Your task to perform on an android device: open app "Roku - Official Remote Control" (install if not already installed), go to login, and select forgot password Image 0: 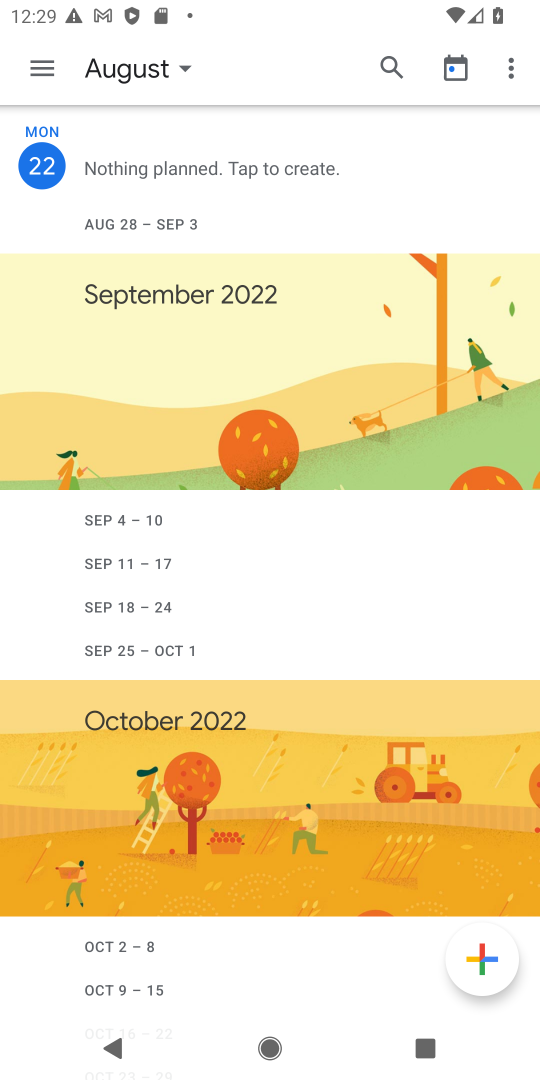
Step 0: press home button
Your task to perform on an android device: open app "Roku - Official Remote Control" (install if not already installed), go to login, and select forgot password Image 1: 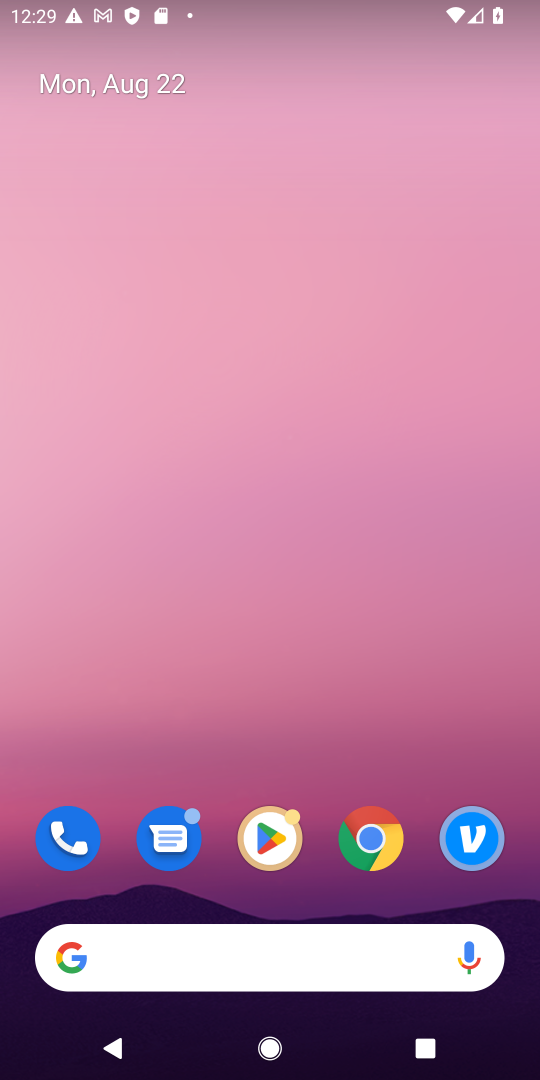
Step 1: drag from (253, 917) to (254, 206)
Your task to perform on an android device: open app "Roku - Official Remote Control" (install if not already installed), go to login, and select forgot password Image 2: 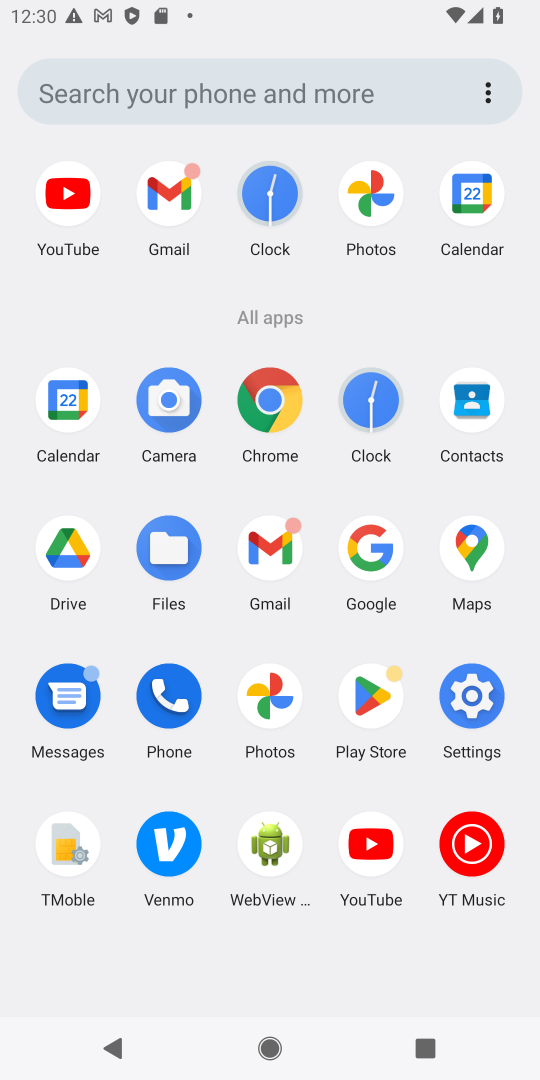
Step 2: click (383, 697)
Your task to perform on an android device: open app "Roku - Official Remote Control" (install if not already installed), go to login, and select forgot password Image 3: 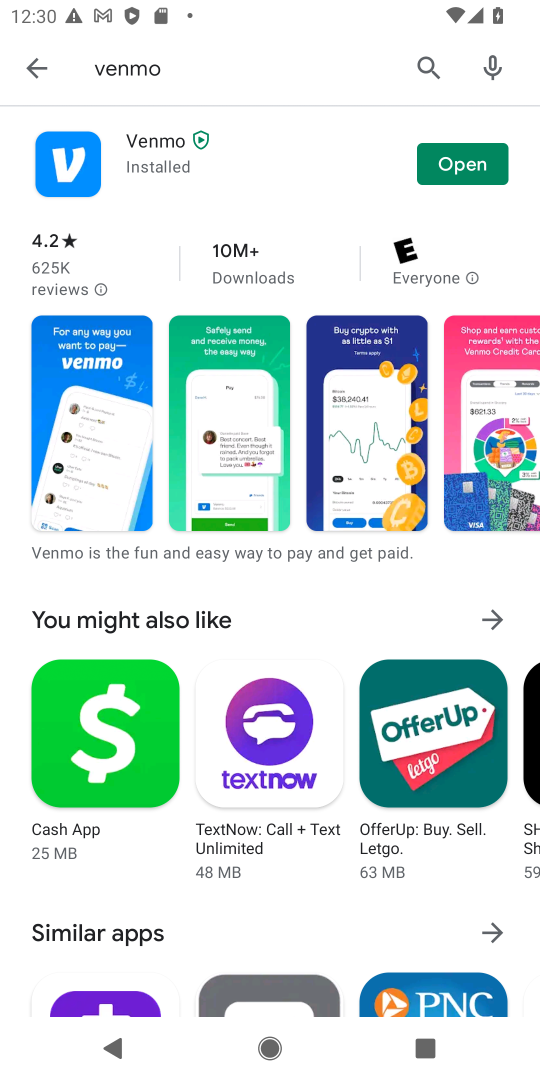
Step 3: click (427, 58)
Your task to perform on an android device: open app "Roku - Official Remote Control" (install if not already installed), go to login, and select forgot password Image 4: 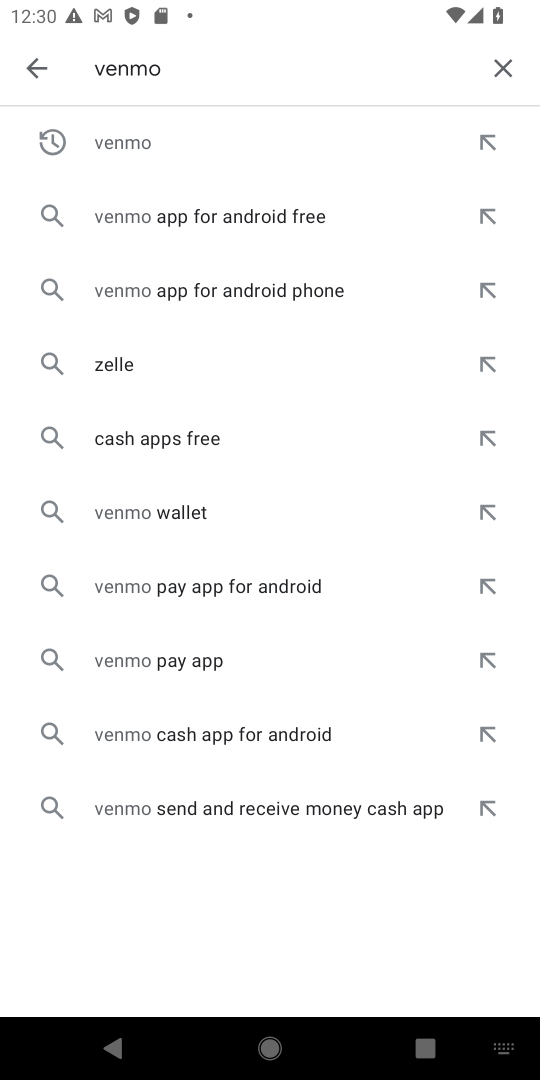
Step 4: click (492, 74)
Your task to perform on an android device: open app "Roku - Official Remote Control" (install if not already installed), go to login, and select forgot password Image 5: 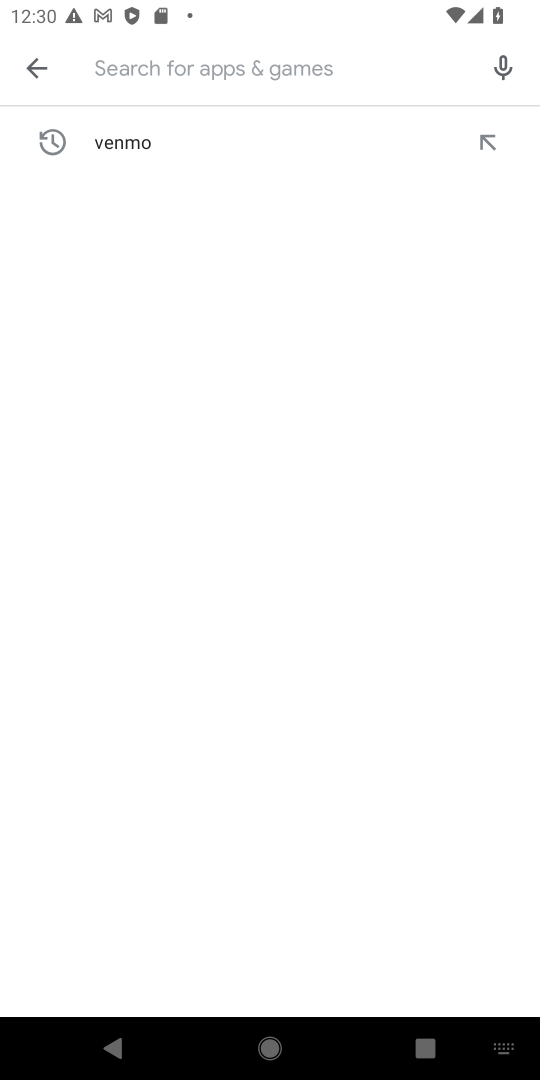
Step 5: type "Roku - Official Remote Control"
Your task to perform on an android device: open app "Roku - Official Remote Control" (install if not already installed), go to login, and select forgot password Image 6: 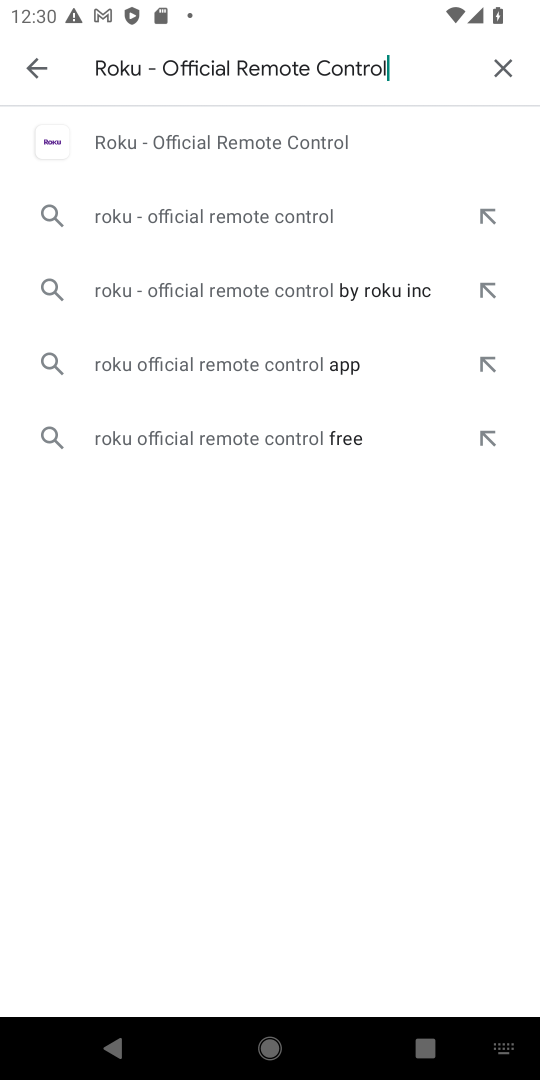
Step 6: click (265, 146)
Your task to perform on an android device: open app "Roku - Official Remote Control" (install if not already installed), go to login, and select forgot password Image 7: 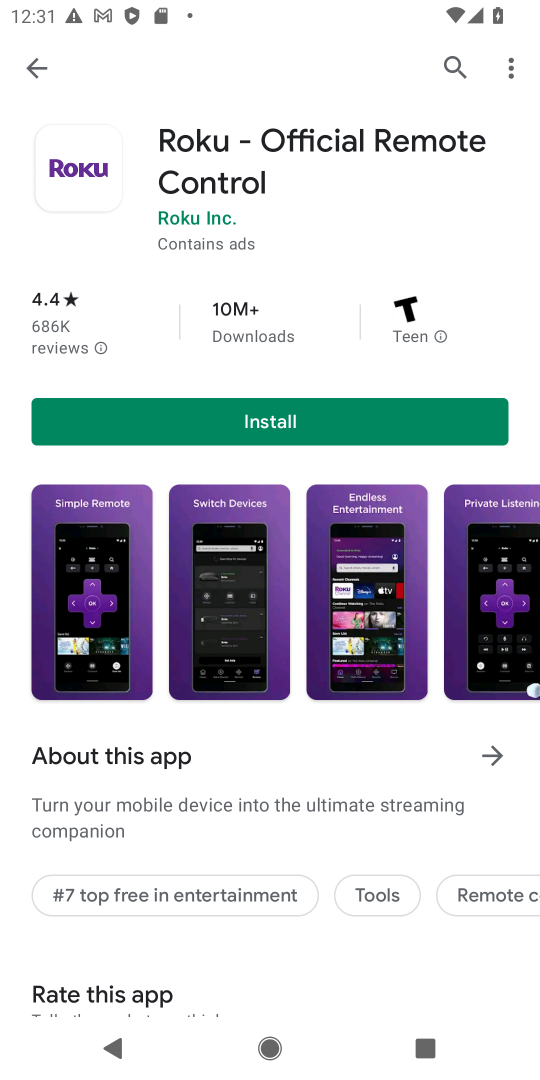
Step 7: click (327, 413)
Your task to perform on an android device: open app "Roku - Official Remote Control" (install if not already installed), go to login, and select forgot password Image 8: 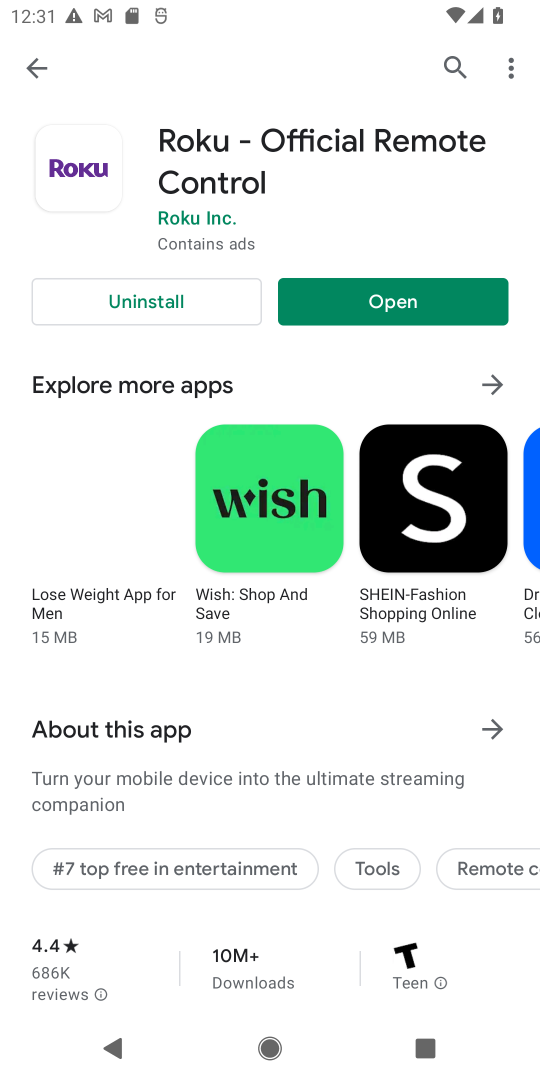
Step 8: click (345, 297)
Your task to perform on an android device: open app "Roku - Official Remote Control" (install if not already installed), go to login, and select forgot password Image 9: 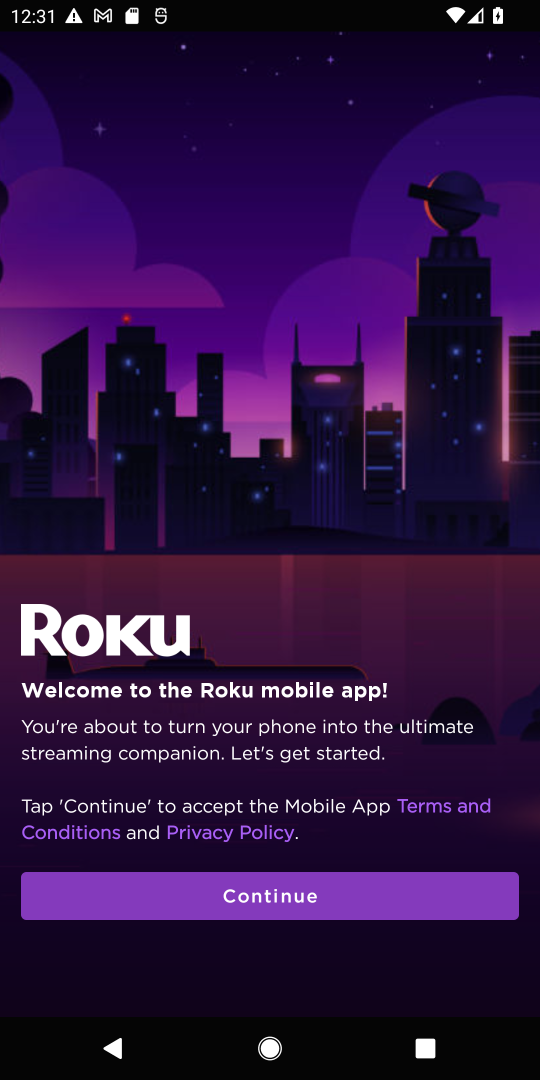
Step 9: task complete